Your task to perform on an android device: Do I have any events tomorrow? Image 0: 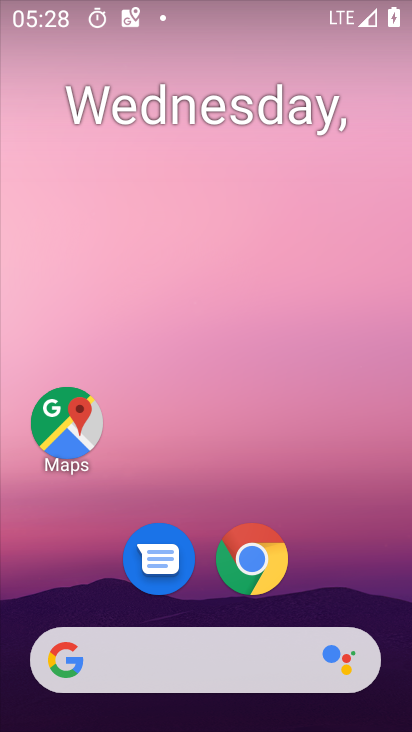
Step 0: drag from (321, 458) to (211, 19)
Your task to perform on an android device: Do I have any events tomorrow? Image 1: 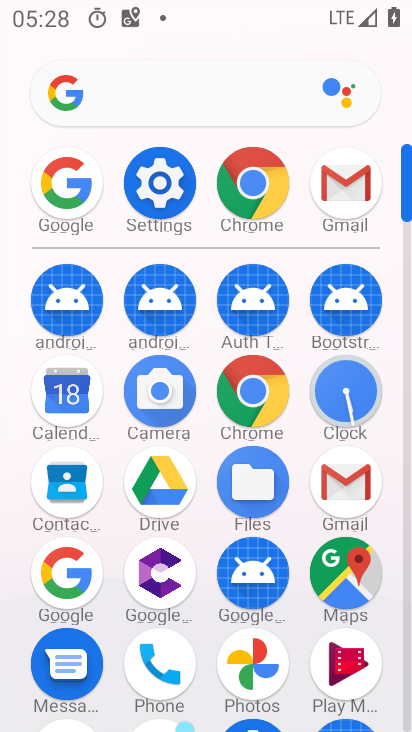
Step 1: click (58, 406)
Your task to perform on an android device: Do I have any events tomorrow? Image 2: 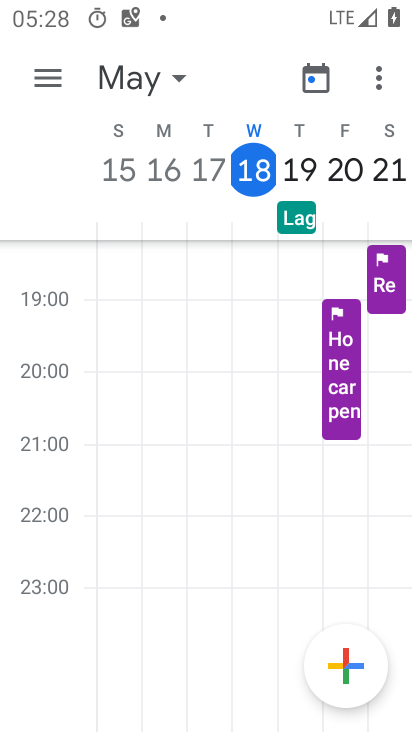
Step 2: task complete